Your task to perform on an android device: find snoozed emails in the gmail app Image 0: 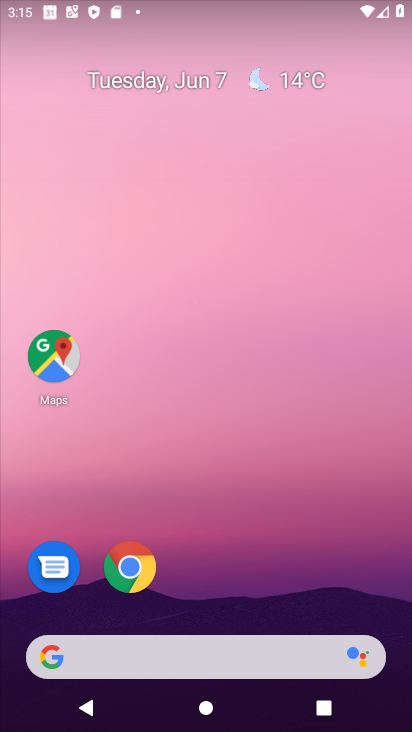
Step 0: drag from (204, 569) to (188, 192)
Your task to perform on an android device: find snoozed emails in the gmail app Image 1: 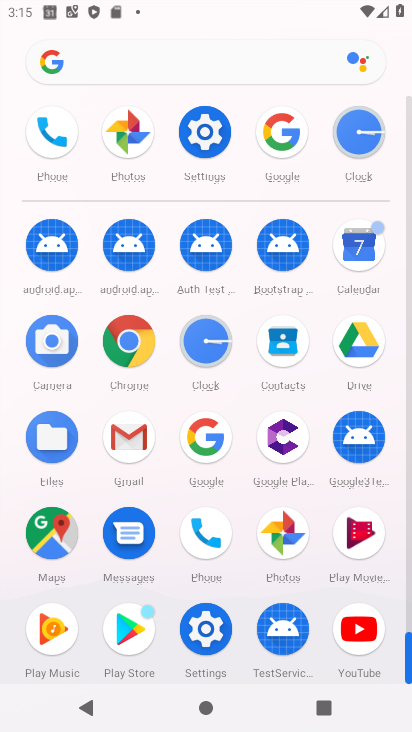
Step 1: click (136, 435)
Your task to perform on an android device: find snoozed emails in the gmail app Image 2: 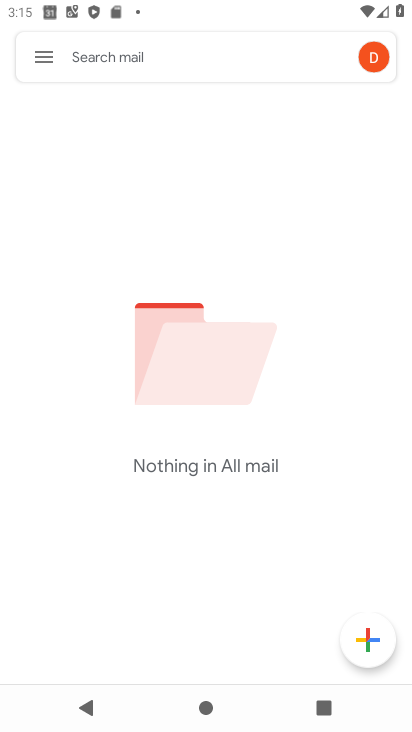
Step 2: click (49, 49)
Your task to perform on an android device: find snoozed emails in the gmail app Image 3: 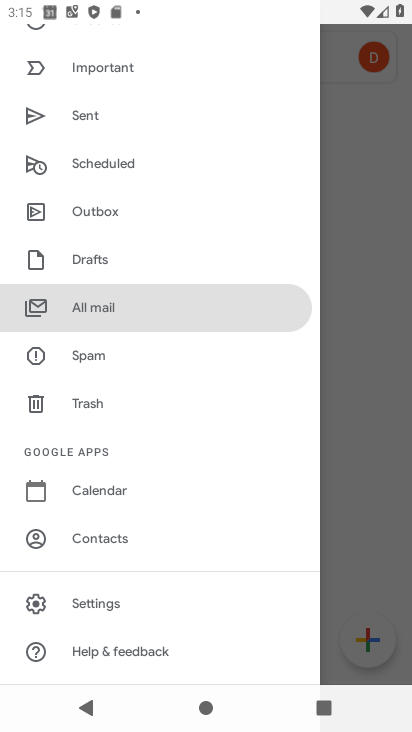
Step 3: drag from (140, 214) to (168, 409)
Your task to perform on an android device: find snoozed emails in the gmail app Image 4: 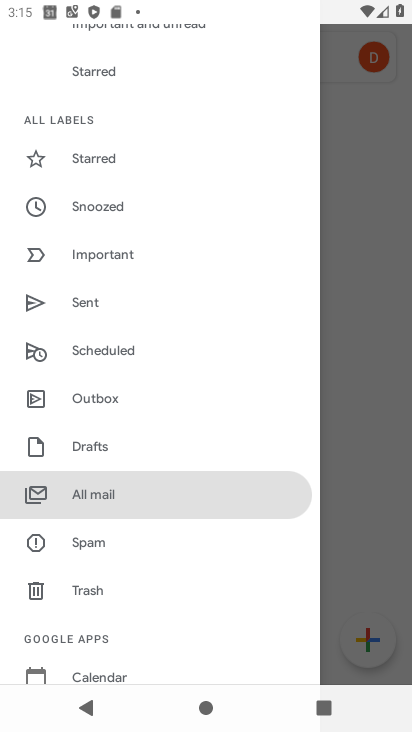
Step 4: click (139, 208)
Your task to perform on an android device: find snoozed emails in the gmail app Image 5: 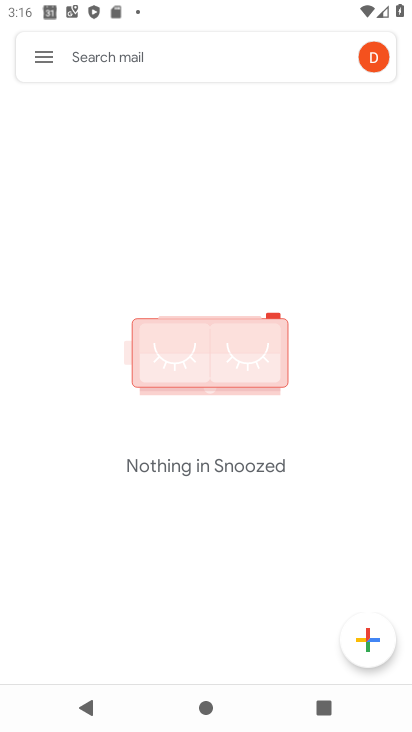
Step 5: task complete